Your task to perform on an android device: empty trash in the gmail app Image 0: 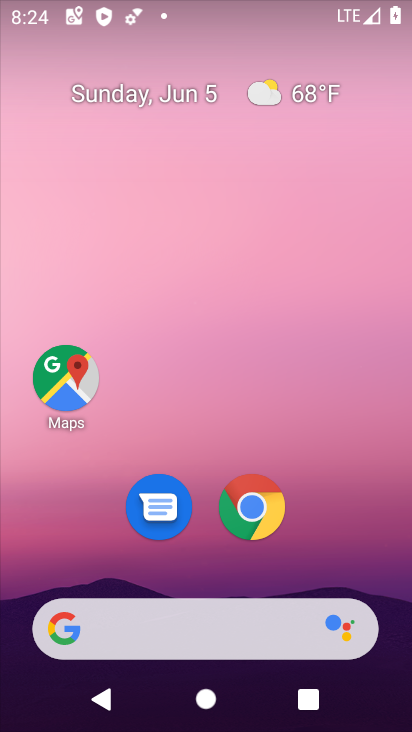
Step 0: drag from (215, 575) to (238, 3)
Your task to perform on an android device: empty trash in the gmail app Image 1: 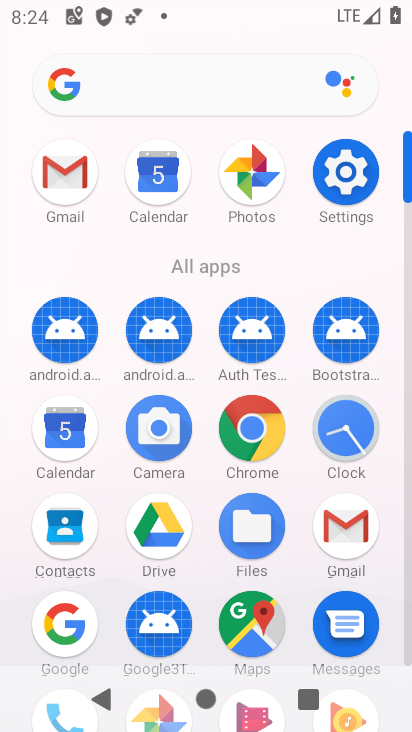
Step 1: click (334, 529)
Your task to perform on an android device: empty trash in the gmail app Image 2: 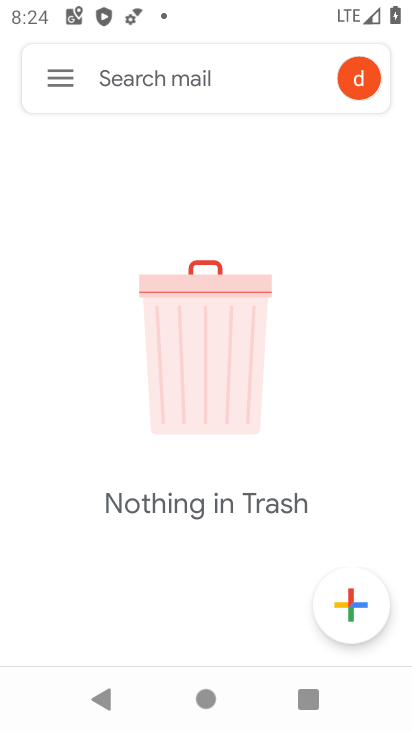
Step 2: click (60, 76)
Your task to perform on an android device: empty trash in the gmail app Image 3: 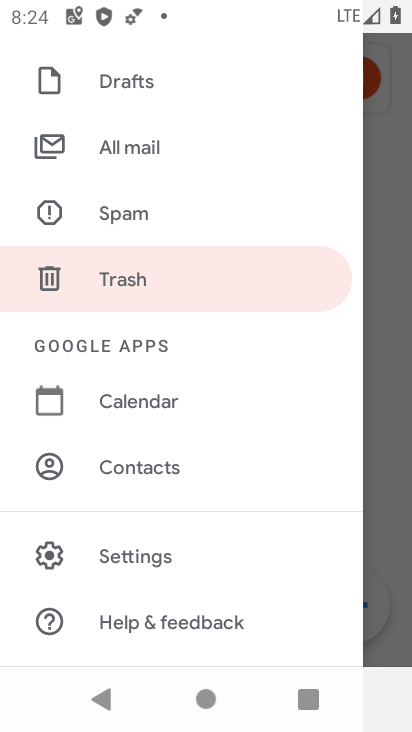
Step 3: click (143, 280)
Your task to perform on an android device: empty trash in the gmail app Image 4: 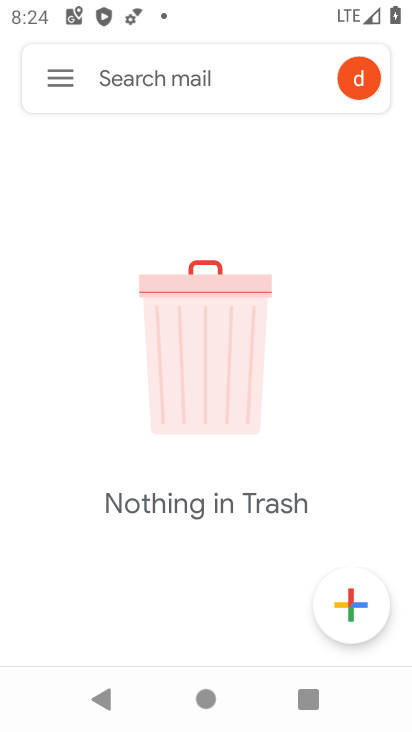
Step 4: task complete